Your task to perform on an android device: change your default location settings in chrome Image 0: 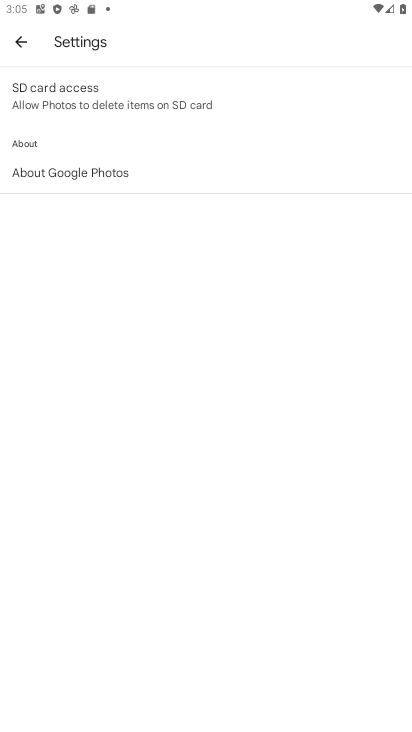
Step 0: press home button
Your task to perform on an android device: change your default location settings in chrome Image 1: 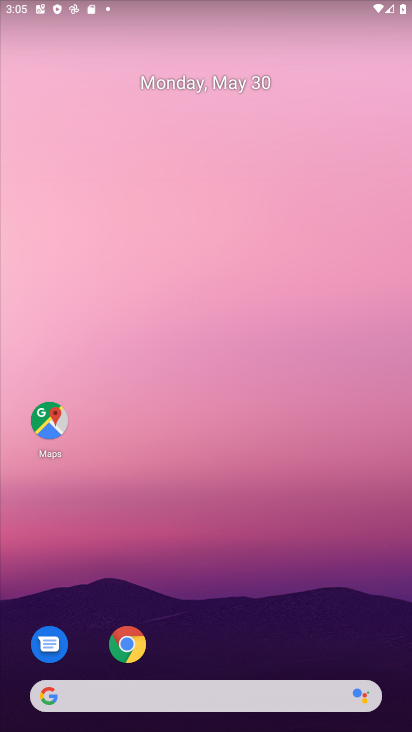
Step 1: click (145, 652)
Your task to perform on an android device: change your default location settings in chrome Image 2: 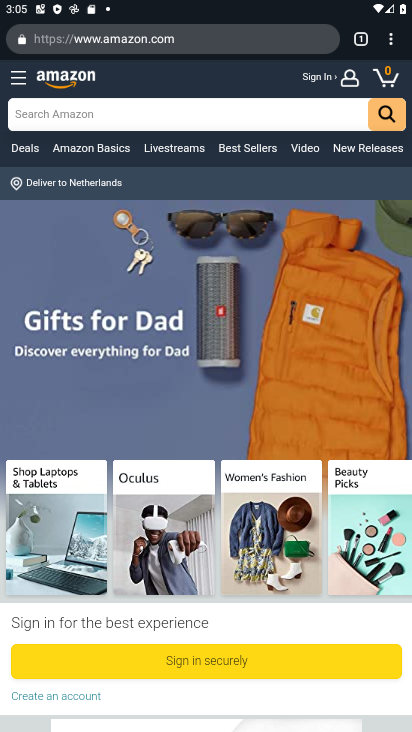
Step 2: click (382, 29)
Your task to perform on an android device: change your default location settings in chrome Image 3: 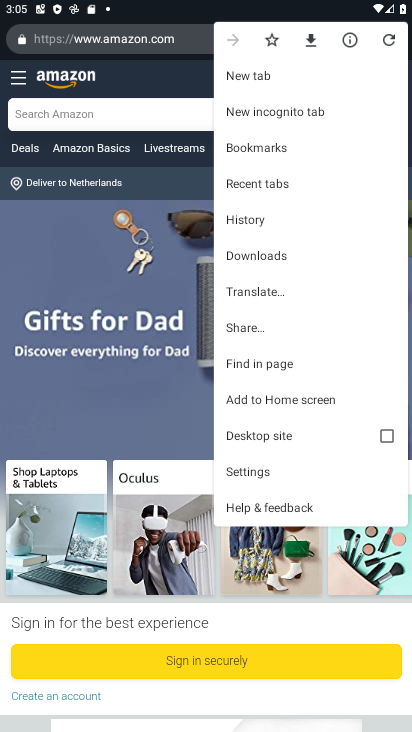
Step 3: click (271, 483)
Your task to perform on an android device: change your default location settings in chrome Image 4: 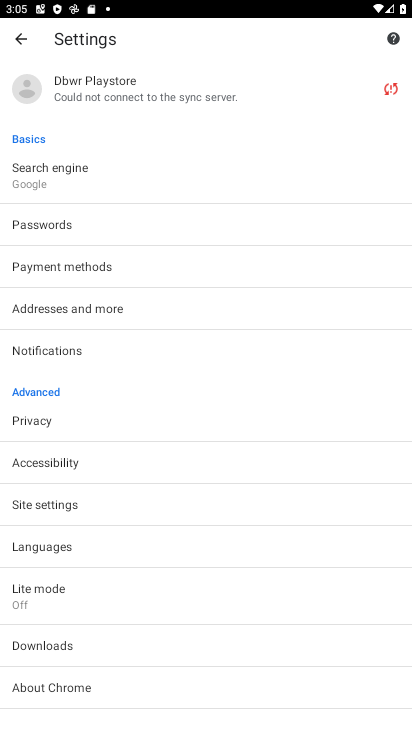
Step 4: click (103, 303)
Your task to perform on an android device: change your default location settings in chrome Image 5: 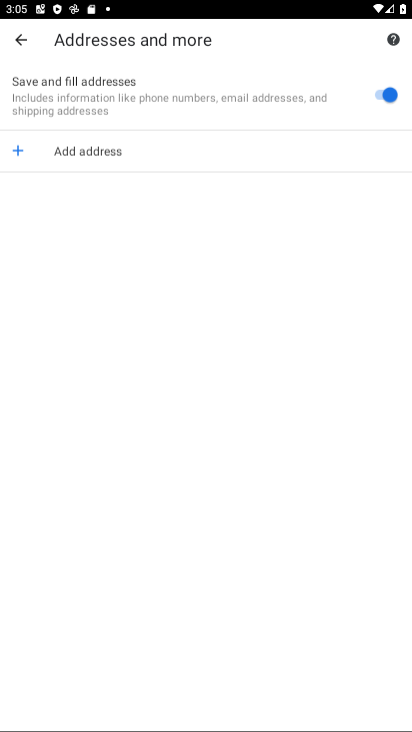
Step 5: task complete